Your task to perform on an android device: see creations saved in the google photos Image 0: 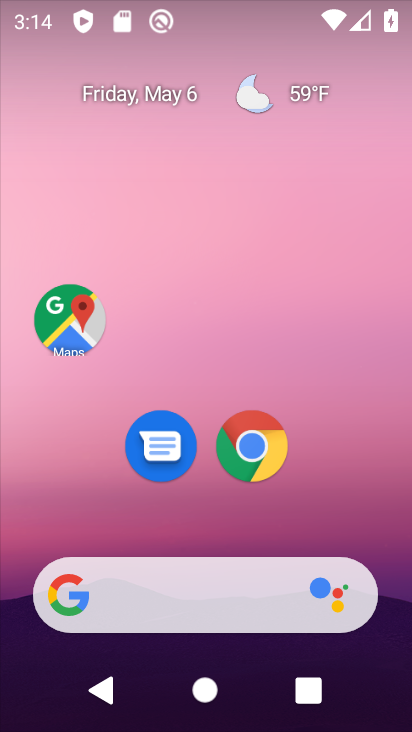
Step 0: drag from (348, 449) to (399, 47)
Your task to perform on an android device: see creations saved in the google photos Image 1: 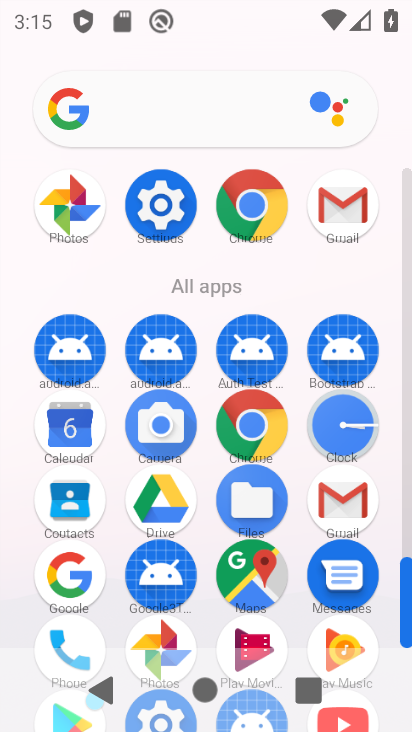
Step 1: click (167, 636)
Your task to perform on an android device: see creations saved in the google photos Image 2: 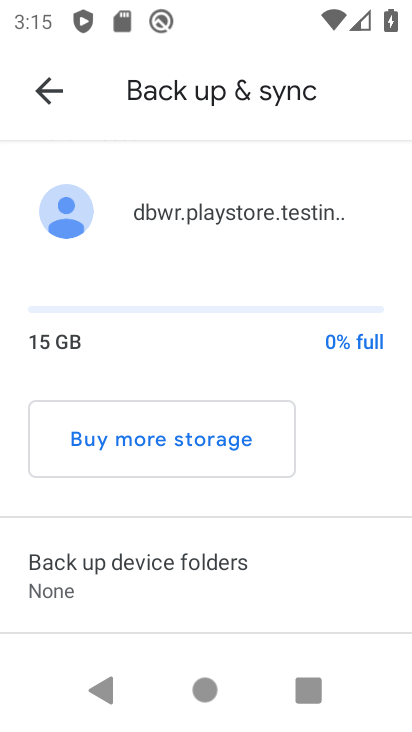
Step 2: press back button
Your task to perform on an android device: see creations saved in the google photos Image 3: 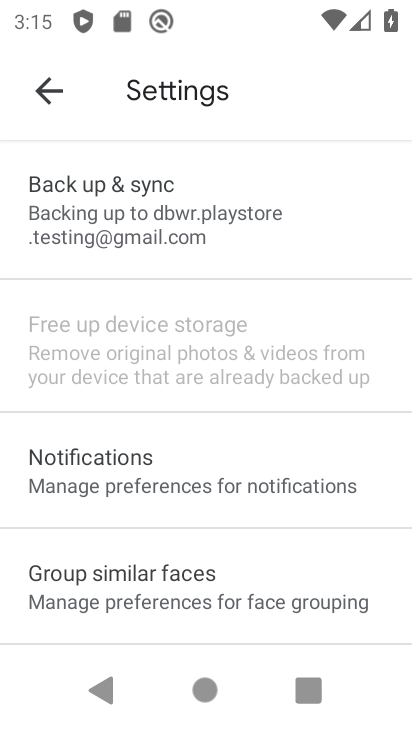
Step 3: press back button
Your task to perform on an android device: see creations saved in the google photos Image 4: 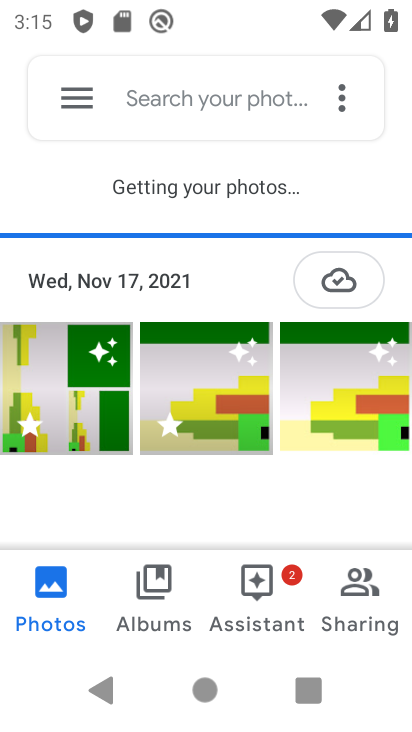
Step 4: click (222, 101)
Your task to perform on an android device: see creations saved in the google photos Image 5: 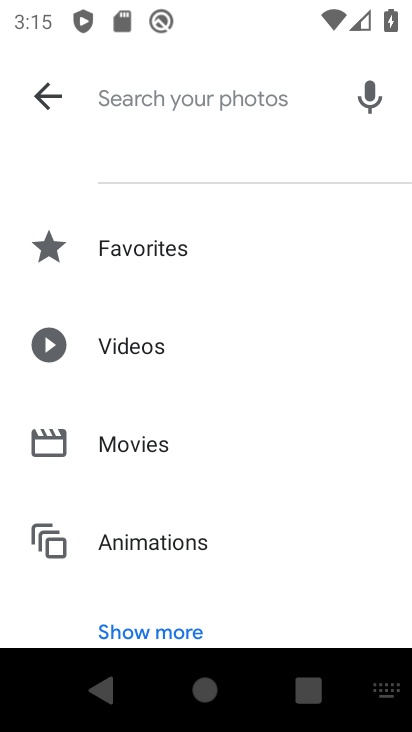
Step 5: drag from (234, 558) to (247, 331)
Your task to perform on an android device: see creations saved in the google photos Image 6: 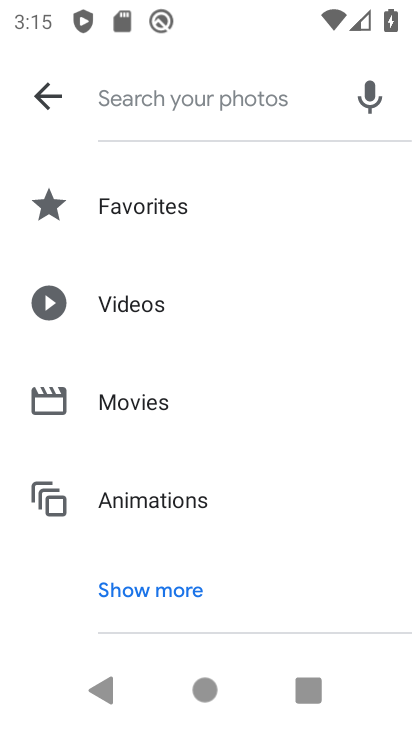
Step 6: click (199, 587)
Your task to perform on an android device: see creations saved in the google photos Image 7: 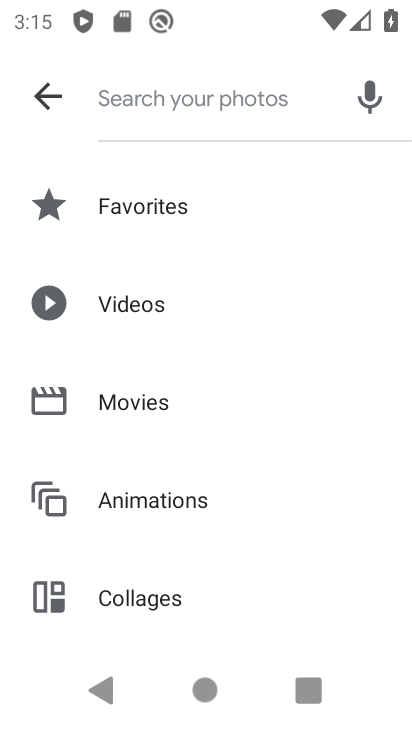
Step 7: drag from (262, 520) to (298, 291)
Your task to perform on an android device: see creations saved in the google photos Image 8: 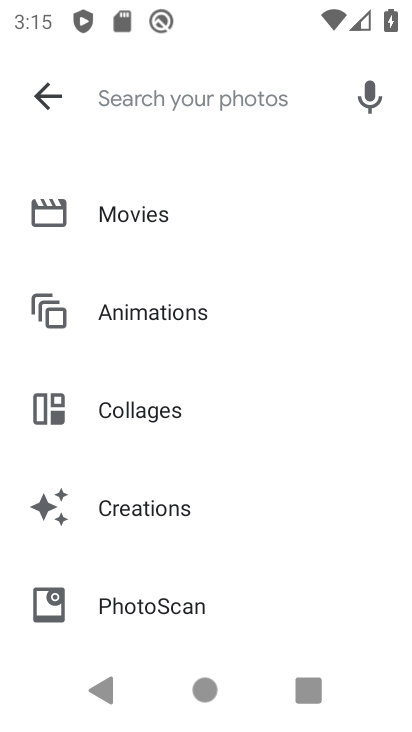
Step 8: click (169, 513)
Your task to perform on an android device: see creations saved in the google photos Image 9: 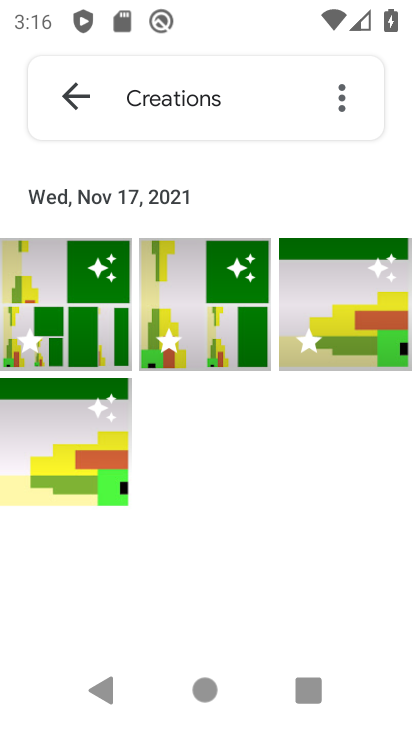
Step 9: task complete